Your task to perform on an android device: Clear the cart on walmart. Search for lenovo thinkpad on walmart, select the first entry, add it to the cart, then select checkout. Image 0: 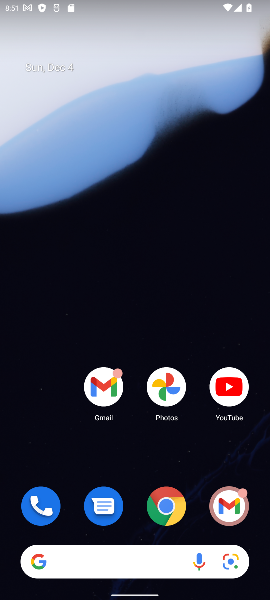
Step 0: click (146, 498)
Your task to perform on an android device: Clear the cart on walmart. Search for lenovo thinkpad on walmart, select the first entry, add it to the cart, then select checkout. Image 1: 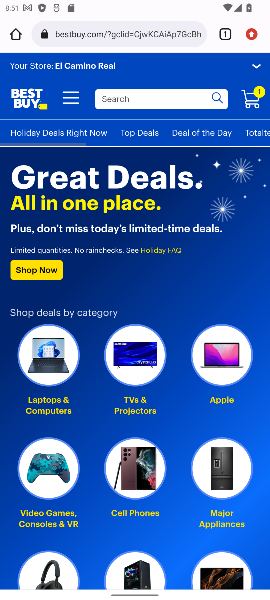
Step 1: click (111, 20)
Your task to perform on an android device: Clear the cart on walmart. Search for lenovo thinkpad on walmart, select the first entry, add it to the cart, then select checkout. Image 2: 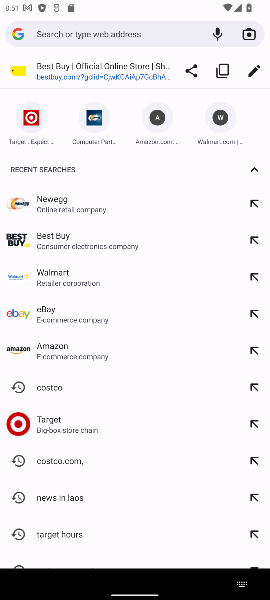
Step 2: click (228, 117)
Your task to perform on an android device: Clear the cart on walmart. Search for lenovo thinkpad on walmart, select the first entry, add it to the cart, then select checkout. Image 3: 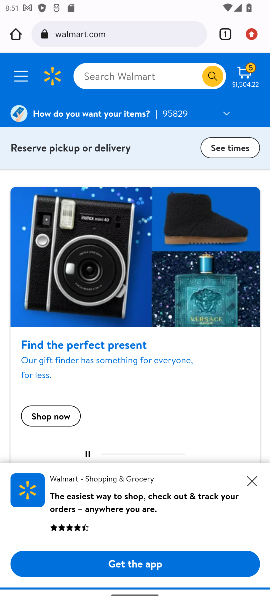
Step 3: click (237, 74)
Your task to perform on an android device: Clear the cart on walmart. Search for lenovo thinkpad on walmart, select the first entry, add it to the cart, then select checkout. Image 4: 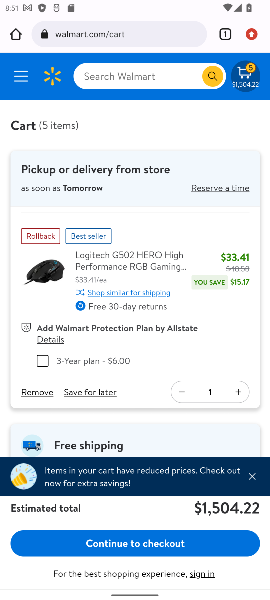
Step 4: click (34, 391)
Your task to perform on an android device: Clear the cart on walmart. Search for lenovo thinkpad on walmart, select the first entry, add it to the cart, then select checkout. Image 5: 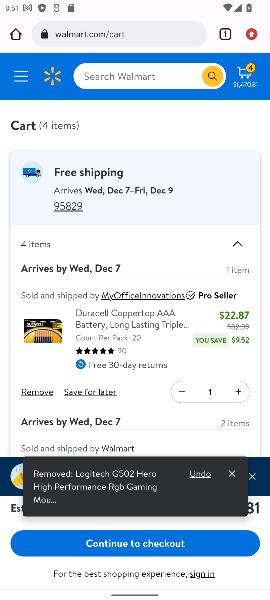
Step 5: click (37, 391)
Your task to perform on an android device: Clear the cart on walmart. Search for lenovo thinkpad on walmart, select the first entry, add it to the cart, then select checkout. Image 6: 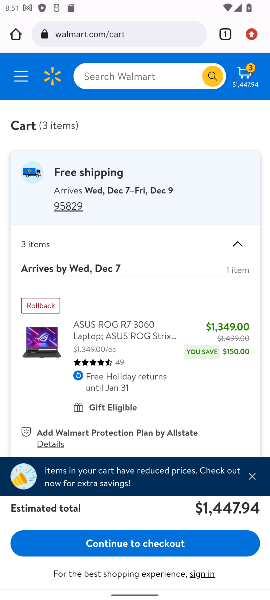
Step 6: drag from (222, 400) to (236, 178)
Your task to perform on an android device: Clear the cart on walmart. Search for lenovo thinkpad on walmart, select the first entry, add it to the cart, then select checkout. Image 7: 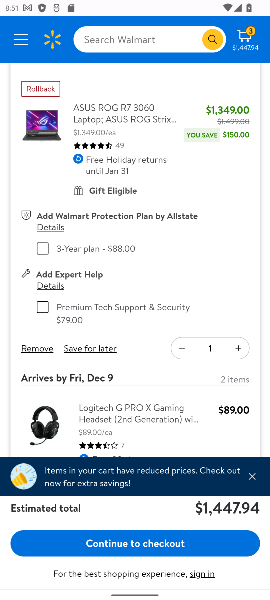
Step 7: click (30, 347)
Your task to perform on an android device: Clear the cart on walmart. Search for lenovo thinkpad on walmart, select the first entry, add it to the cart, then select checkout. Image 8: 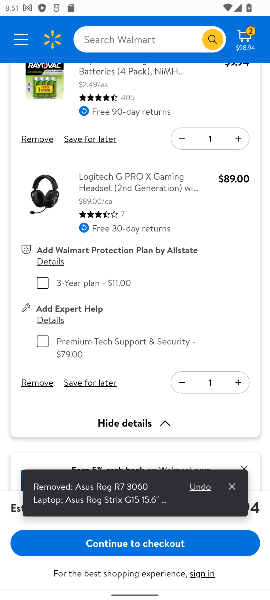
Step 8: click (36, 383)
Your task to perform on an android device: Clear the cart on walmart. Search for lenovo thinkpad on walmart, select the first entry, add it to the cart, then select checkout. Image 9: 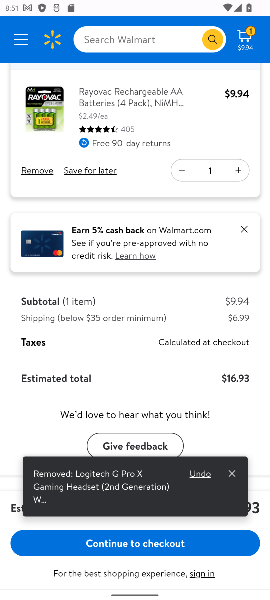
Step 9: click (41, 136)
Your task to perform on an android device: Clear the cart on walmart. Search for lenovo thinkpad on walmart, select the first entry, add it to the cart, then select checkout. Image 10: 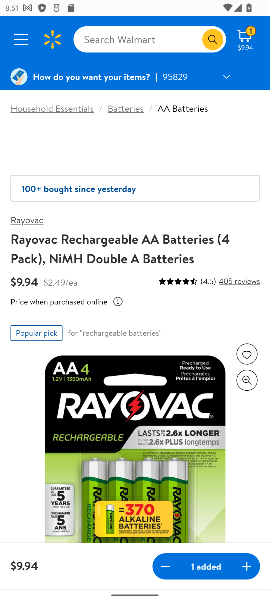
Step 10: drag from (106, 219) to (122, 90)
Your task to perform on an android device: Clear the cart on walmart. Search for lenovo thinkpad on walmart, select the first entry, add it to the cart, then select checkout. Image 11: 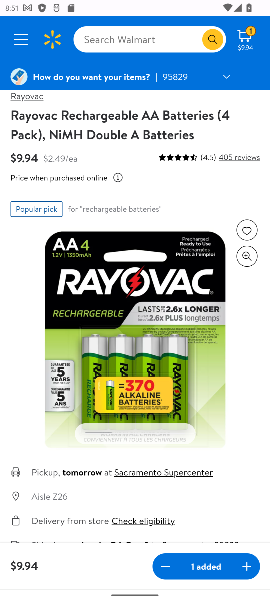
Step 11: drag from (262, 419) to (242, 118)
Your task to perform on an android device: Clear the cart on walmart. Search for lenovo thinkpad on walmart, select the first entry, add it to the cart, then select checkout. Image 12: 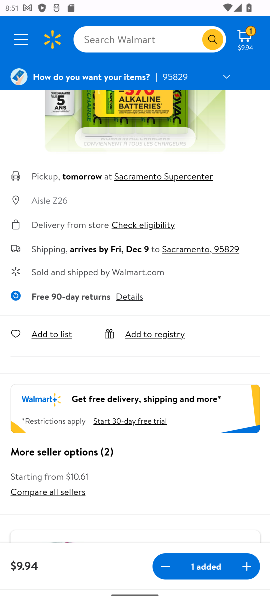
Step 12: drag from (229, 126) to (111, 549)
Your task to perform on an android device: Clear the cart on walmart. Search for lenovo thinkpad on walmart, select the first entry, add it to the cart, then select checkout. Image 13: 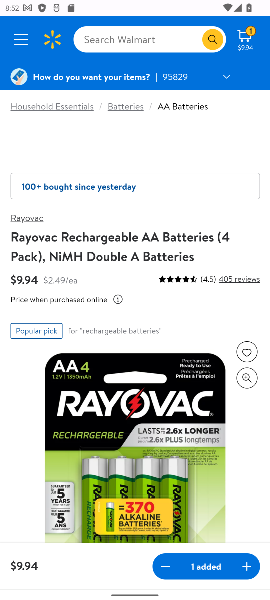
Step 13: drag from (217, 206) to (192, 473)
Your task to perform on an android device: Clear the cart on walmart. Search for lenovo thinkpad on walmart, select the first entry, add it to the cart, then select checkout. Image 14: 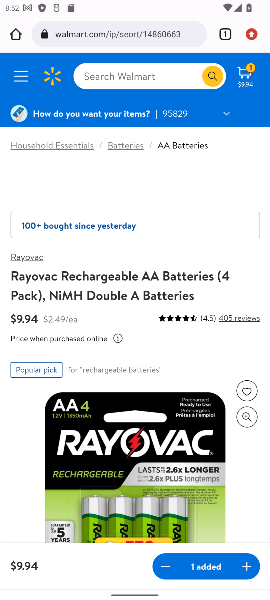
Step 14: drag from (188, 188) to (182, 20)
Your task to perform on an android device: Clear the cart on walmart. Search for lenovo thinkpad on walmart, select the first entry, add it to the cart, then select checkout. Image 15: 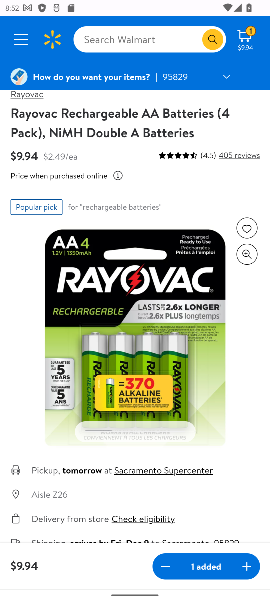
Step 15: click (252, 40)
Your task to perform on an android device: Clear the cart on walmart. Search for lenovo thinkpad on walmart, select the first entry, add it to the cart, then select checkout. Image 16: 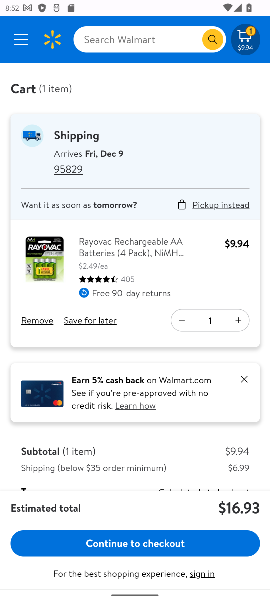
Step 16: click (38, 322)
Your task to perform on an android device: Clear the cart on walmart. Search for lenovo thinkpad on walmart, select the first entry, add it to the cart, then select checkout. Image 17: 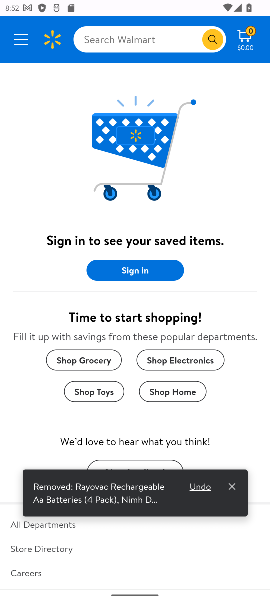
Step 17: click (106, 30)
Your task to perform on an android device: Clear the cart on walmart. Search for lenovo thinkpad on walmart, select the first entry, add it to the cart, then select checkout. Image 18: 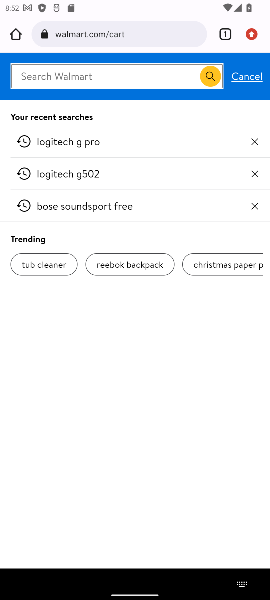
Step 18: type "lenovo thinkpad"
Your task to perform on an android device: Clear the cart on walmart. Search for lenovo thinkpad on walmart, select the first entry, add it to the cart, then select checkout. Image 19: 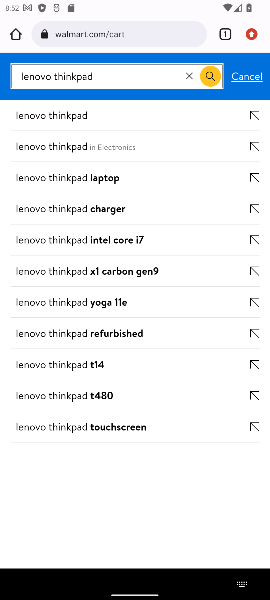
Step 19: click (144, 124)
Your task to perform on an android device: Clear the cart on walmart. Search for lenovo thinkpad on walmart, select the first entry, add it to the cart, then select checkout. Image 20: 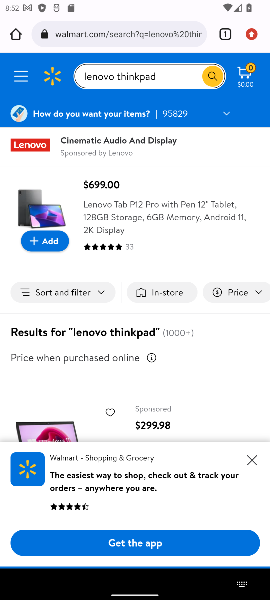
Step 20: drag from (207, 413) to (177, 120)
Your task to perform on an android device: Clear the cart on walmart. Search for lenovo thinkpad on walmart, select the first entry, add it to the cart, then select checkout. Image 21: 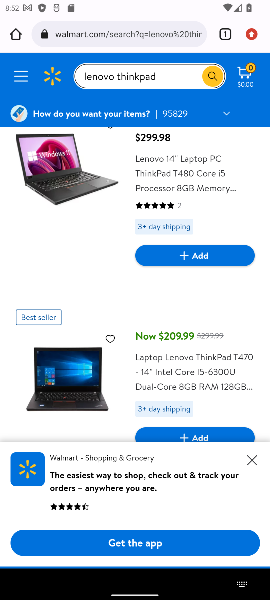
Step 21: click (163, 254)
Your task to perform on an android device: Clear the cart on walmart. Search for lenovo thinkpad on walmart, select the first entry, add it to the cart, then select checkout. Image 22: 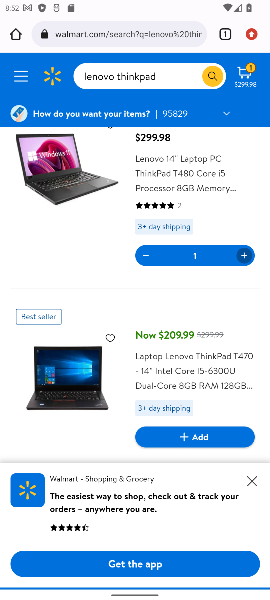
Step 22: click (243, 68)
Your task to perform on an android device: Clear the cart on walmart. Search for lenovo thinkpad on walmart, select the first entry, add it to the cart, then select checkout. Image 23: 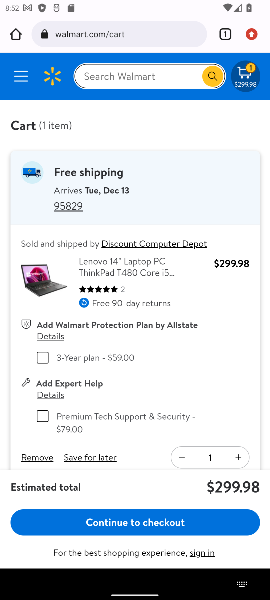
Step 23: click (153, 524)
Your task to perform on an android device: Clear the cart on walmart. Search for lenovo thinkpad on walmart, select the first entry, add it to the cart, then select checkout. Image 24: 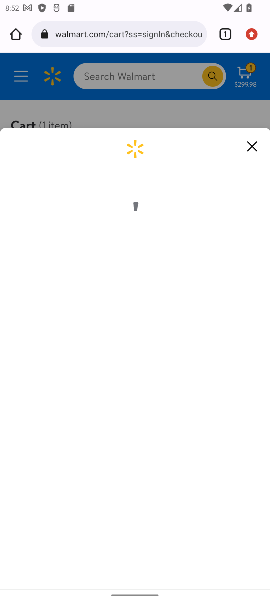
Step 24: task complete